Your task to perform on an android device: turn off data saver in the chrome app Image 0: 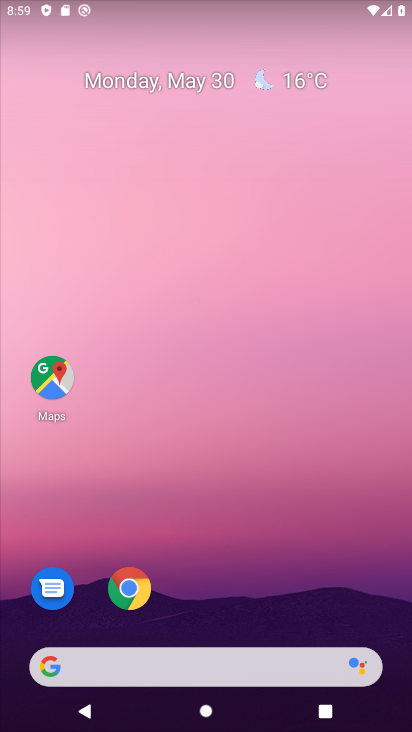
Step 0: drag from (207, 616) to (312, 150)
Your task to perform on an android device: turn off data saver in the chrome app Image 1: 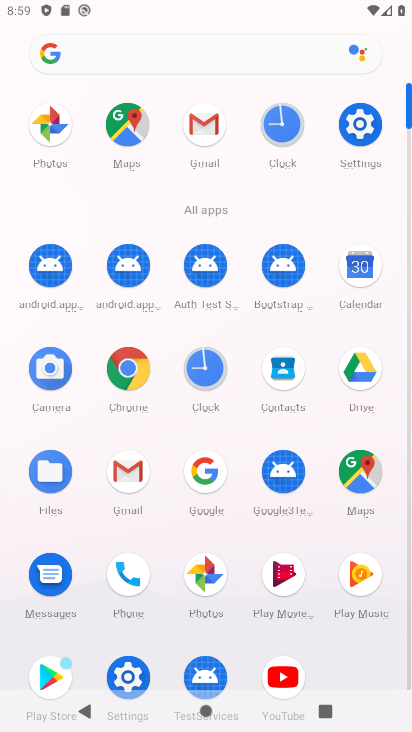
Step 1: click (133, 364)
Your task to perform on an android device: turn off data saver in the chrome app Image 2: 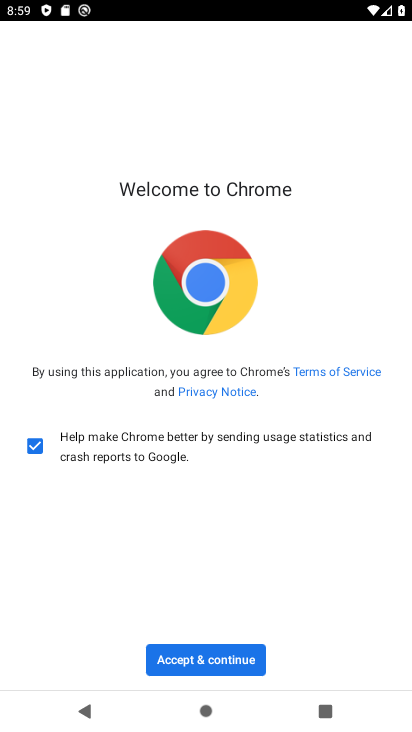
Step 2: click (241, 659)
Your task to perform on an android device: turn off data saver in the chrome app Image 3: 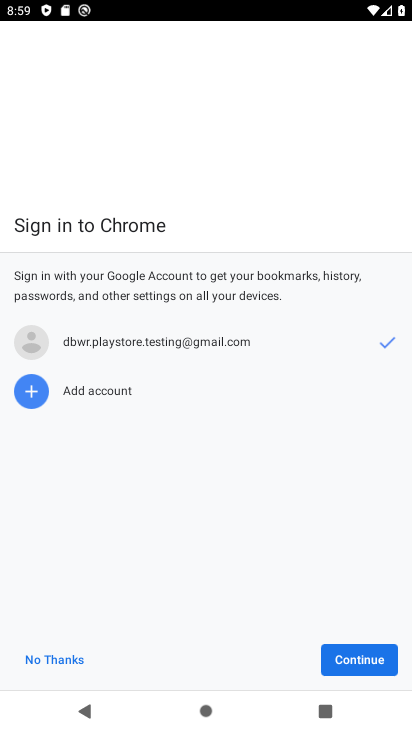
Step 3: click (380, 658)
Your task to perform on an android device: turn off data saver in the chrome app Image 4: 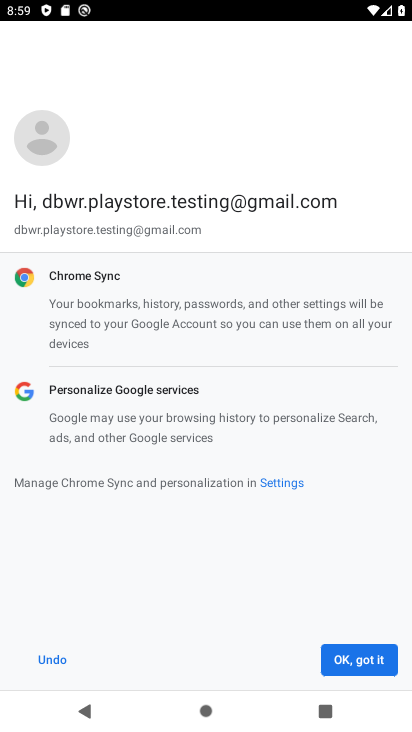
Step 4: click (380, 658)
Your task to perform on an android device: turn off data saver in the chrome app Image 5: 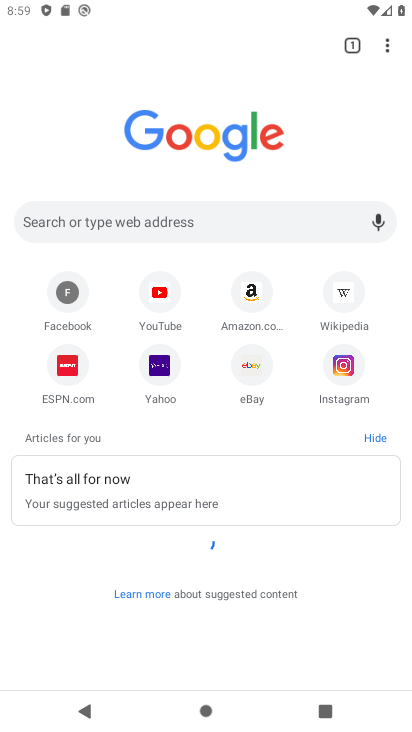
Step 5: drag from (386, 45) to (264, 382)
Your task to perform on an android device: turn off data saver in the chrome app Image 6: 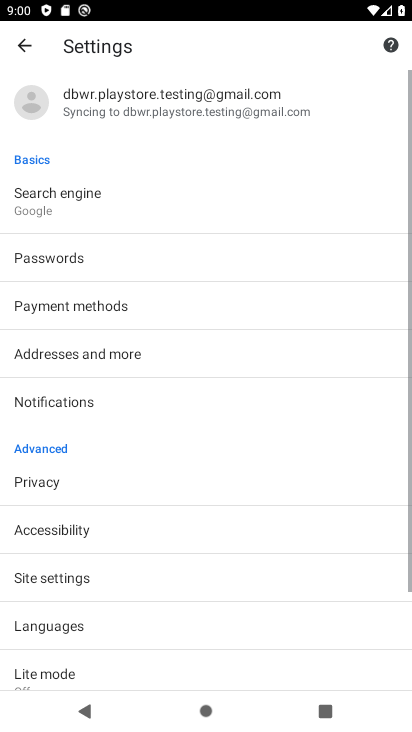
Step 6: drag from (178, 650) to (239, 365)
Your task to perform on an android device: turn off data saver in the chrome app Image 7: 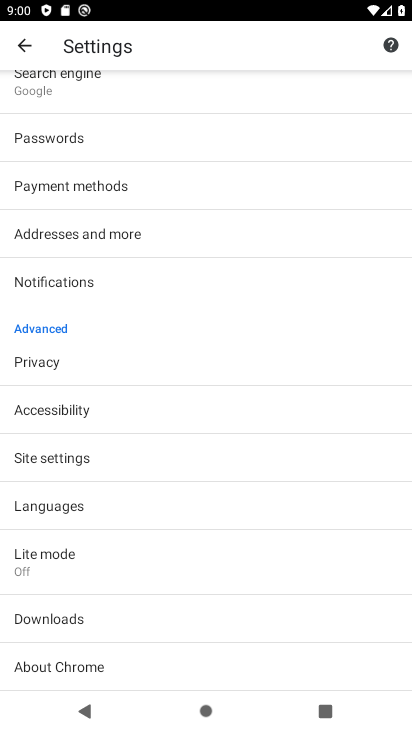
Step 7: click (107, 582)
Your task to perform on an android device: turn off data saver in the chrome app Image 8: 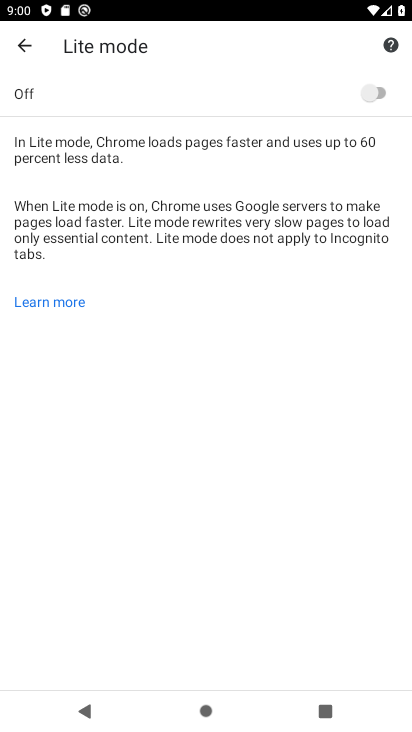
Step 8: task complete